Your task to perform on an android device: change the clock display to show seconds Image 0: 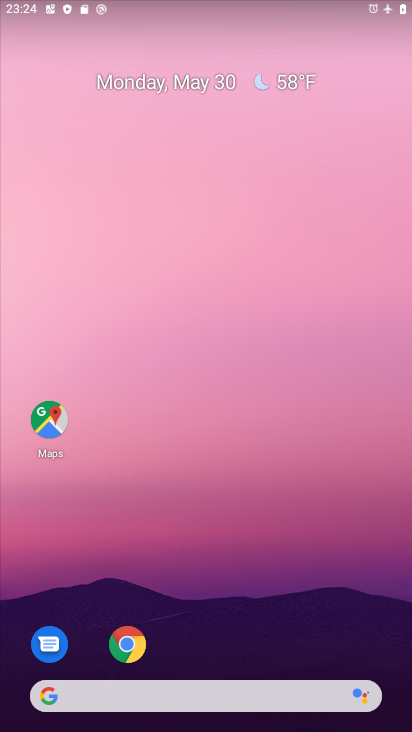
Step 0: drag from (365, 635) to (314, 120)
Your task to perform on an android device: change the clock display to show seconds Image 1: 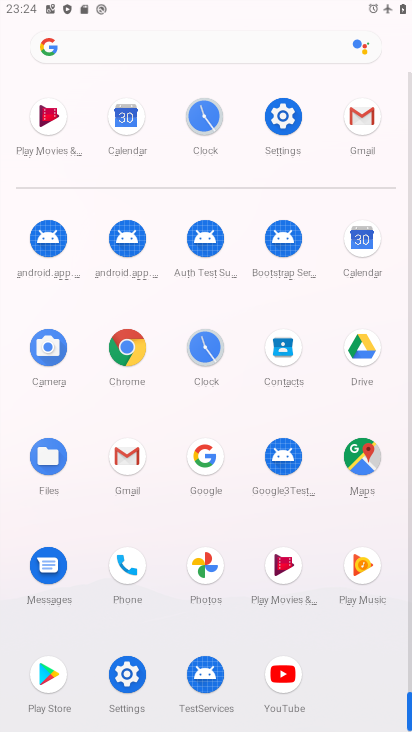
Step 1: click (206, 346)
Your task to perform on an android device: change the clock display to show seconds Image 2: 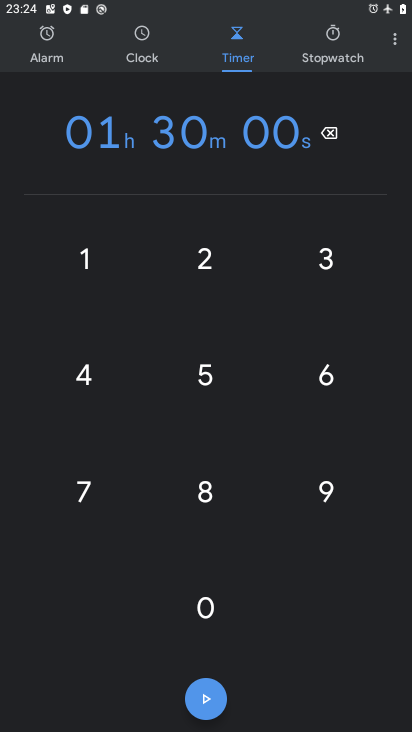
Step 2: click (390, 41)
Your task to perform on an android device: change the clock display to show seconds Image 3: 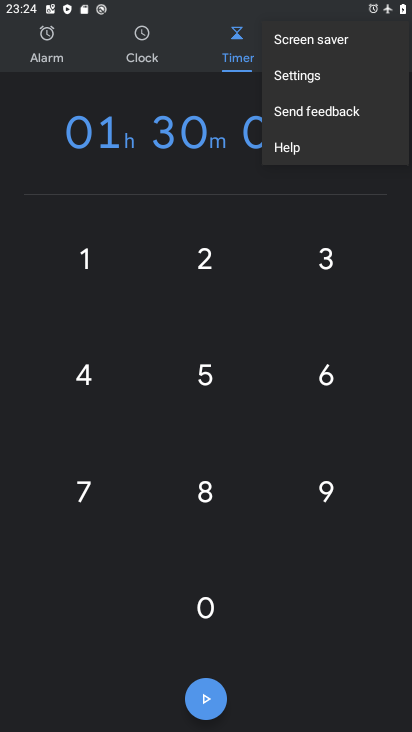
Step 3: click (283, 75)
Your task to perform on an android device: change the clock display to show seconds Image 4: 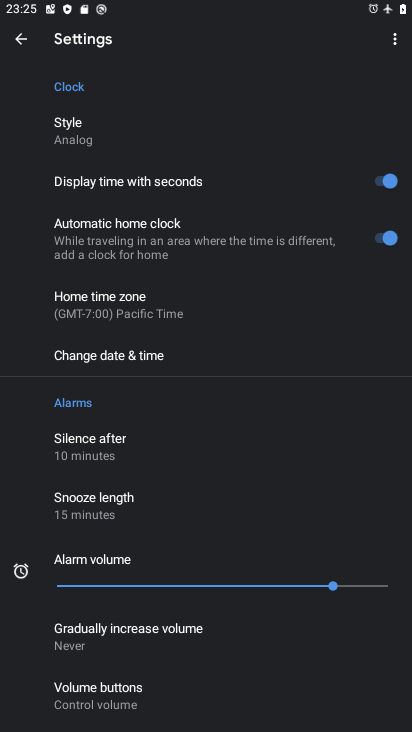
Step 4: task complete